Your task to perform on an android device: Go to Reddit.com Image 0: 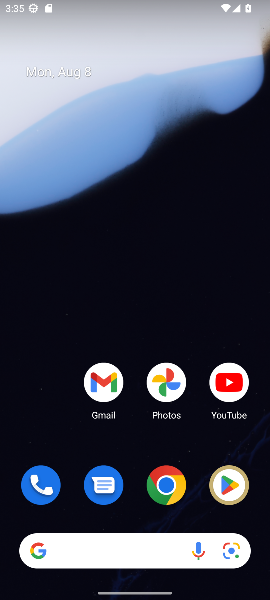
Step 0: drag from (196, 561) to (105, 193)
Your task to perform on an android device: Go to Reddit.com Image 1: 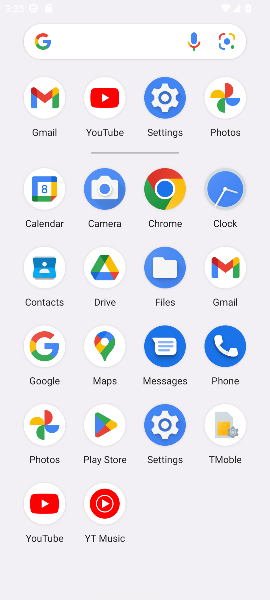
Step 1: drag from (157, 478) to (110, 144)
Your task to perform on an android device: Go to Reddit.com Image 2: 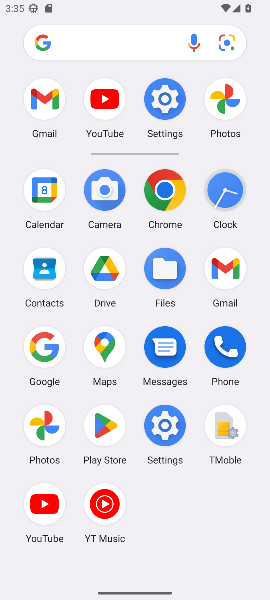
Step 2: click (160, 191)
Your task to perform on an android device: Go to Reddit.com Image 3: 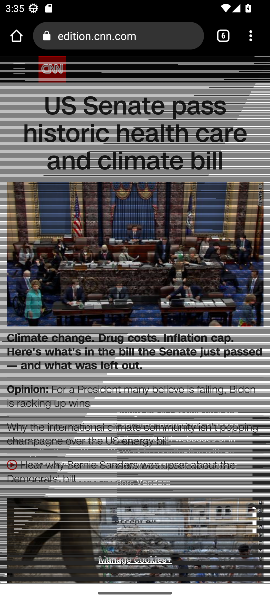
Step 3: drag from (248, 35) to (197, 362)
Your task to perform on an android device: Go to Reddit.com Image 4: 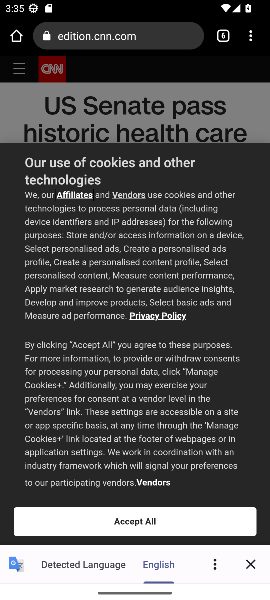
Step 4: drag from (254, 38) to (15, 180)
Your task to perform on an android device: Go to Reddit.com Image 5: 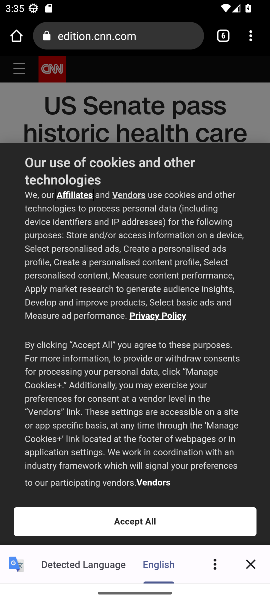
Step 5: click (138, 72)
Your task to perform on an android device: Go to Reddit.com Image 6: 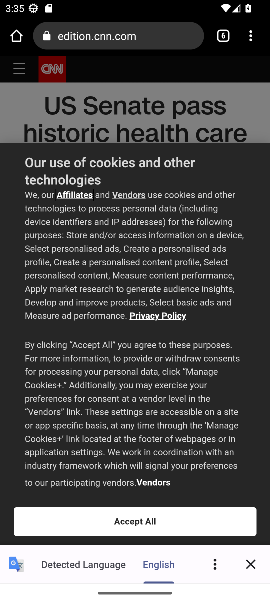
Step 6: click (140, 72)
Your task to perform on an android device: Go to Reddit.com Image 7: 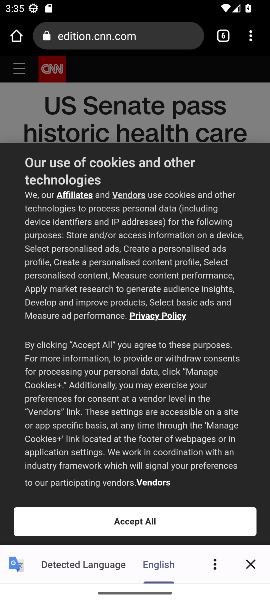
Step 7: drag from (242, 36) to (145, 65)
Your task to perform on an android device: Go to Reddit.com Image 8: 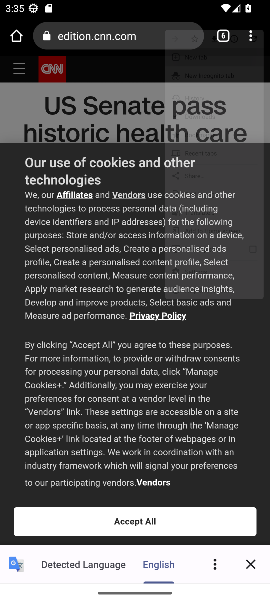
Step 8: click (145, 66)
Your task to perform on an android device: Go to Reddit.com Image 9: 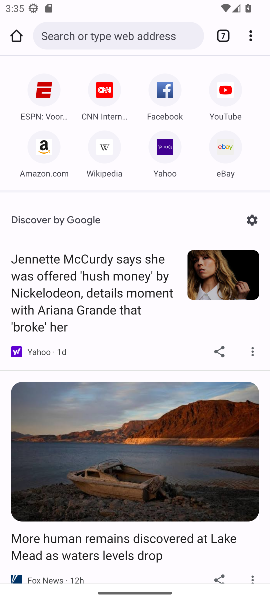
Step 9: click (95, 33)
Your task to perform on an android device: Go to Reddit.com Image 10: 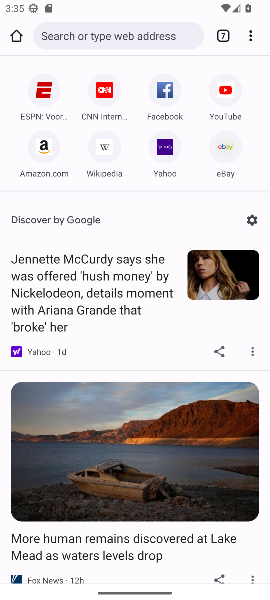
Step 10: click (95, 33)
Your task to perform on an android device: Go to Reddit.com Image 11: 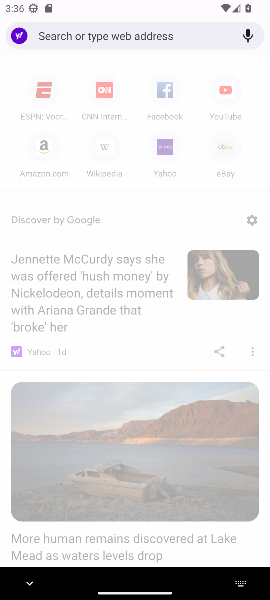
Step 11: type "Reddit.com"
Your task to perform on an android device: Go to Reddit.com Image 12: 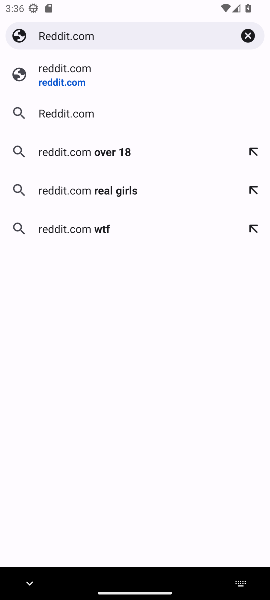
Step 12: click (60, 76)
Your task to perform on an android device: Go to Reddit.com Image 13: 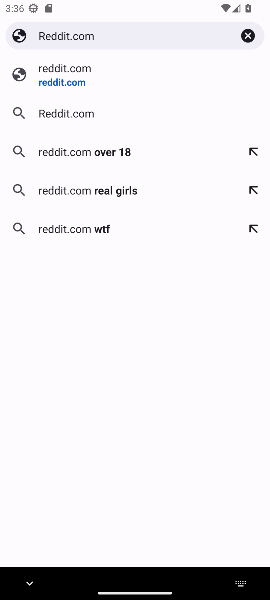
Step 13: click (59, 75)
Your task to perform on an android device: Go to Reddit.com Image 14: 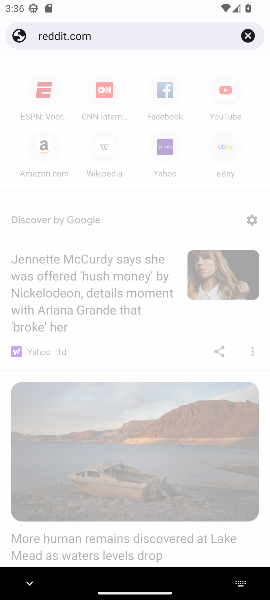
Step 14: click (60, 79)
Your task to perform on an android device: Go to Reddit.com Image 15: 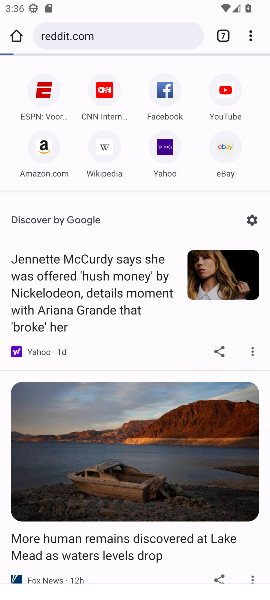
Step 15: click (61, 78)
Your task to perform on an android device: Go to Reddit.com Image 16: 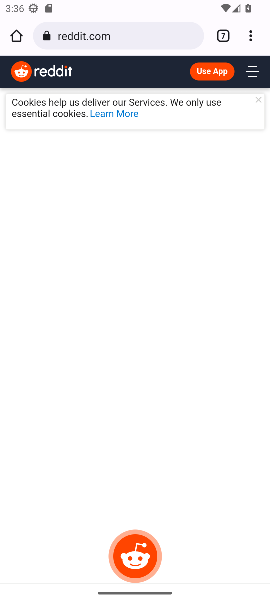
Step 16: task complete